Your task to perform on an android device: allow notifications from all sites in the chrome app Image 0: 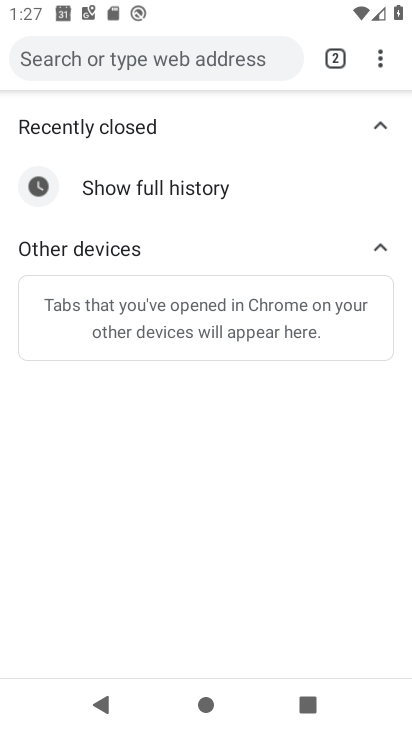
Step 0: press home button
Your task to perform on an android device: allow notifications from all sites in the chrome app Image 1: 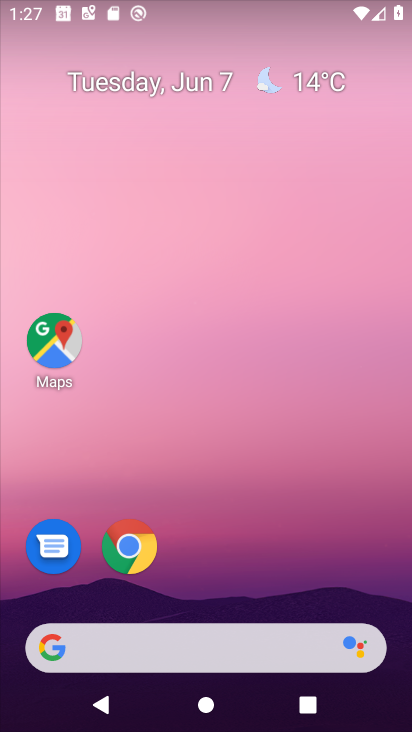
Step 1: click (105, 539)
Your task to perform on an android device: allow notifications from all sites in the chrome app Image 2: 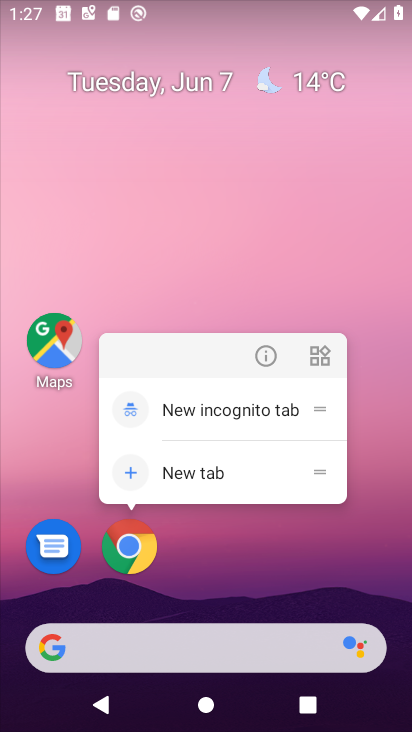
Step 2: click (136, 564)
Your task to perform on an android device: allow notifications from all sites in the chrome app Image 3: 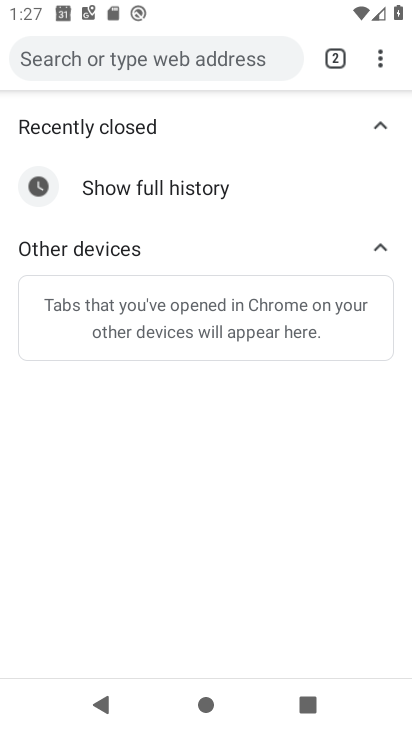
Step 3: drag from (378, 56) to (187, 488)
Your task to perform on an android device: allow notifications from all sites in the chrome app Image 4: 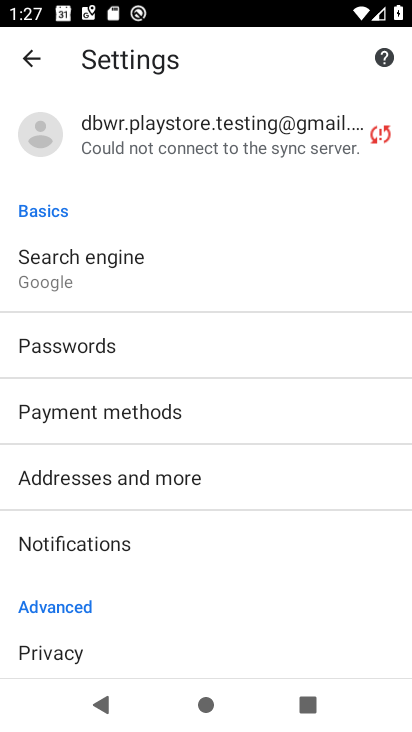
Step 4: drag from (256, 585) to (283, 170)
Your task to perform on an android device: allow notifications from all sites in the chrome app Image 5: 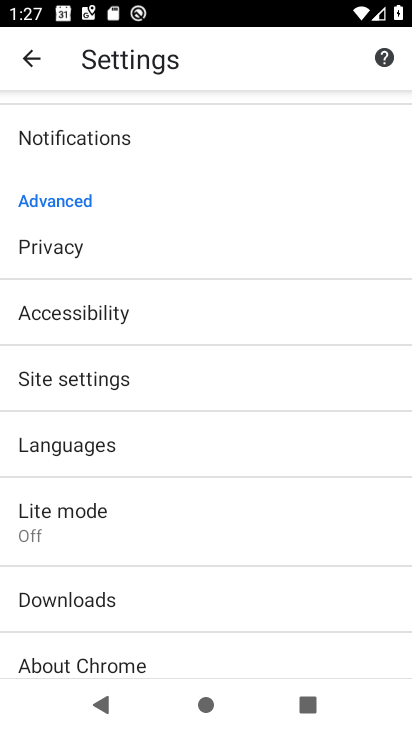
Step 5: click (55, 370)
Your task to perform on an android device: allow notifications from all sites in the chrome app Image 6: 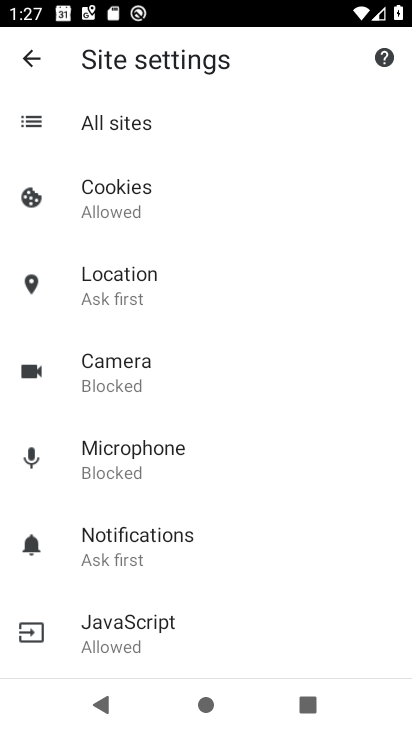
Step 6: click (206, 547)
Your task to perform on an android device: allow notifications from all sites in the chrome app Image 7: 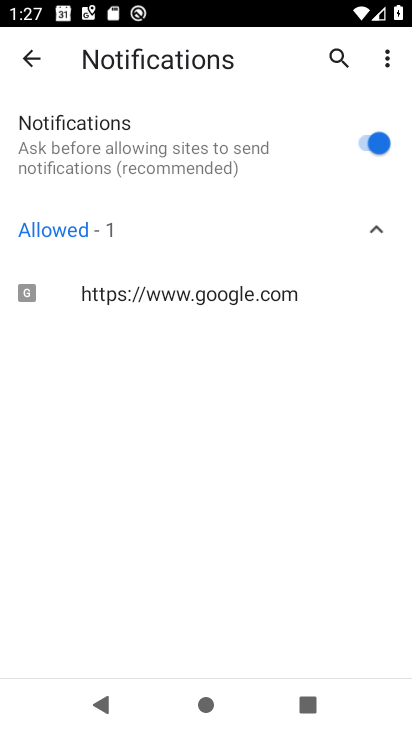
Step 7: task complete